Your task to perform on an android device: Clear all items from cart on bestbuy.com. Add asus rog to the cart on bestbuy.com, then select checkout. Image 0: 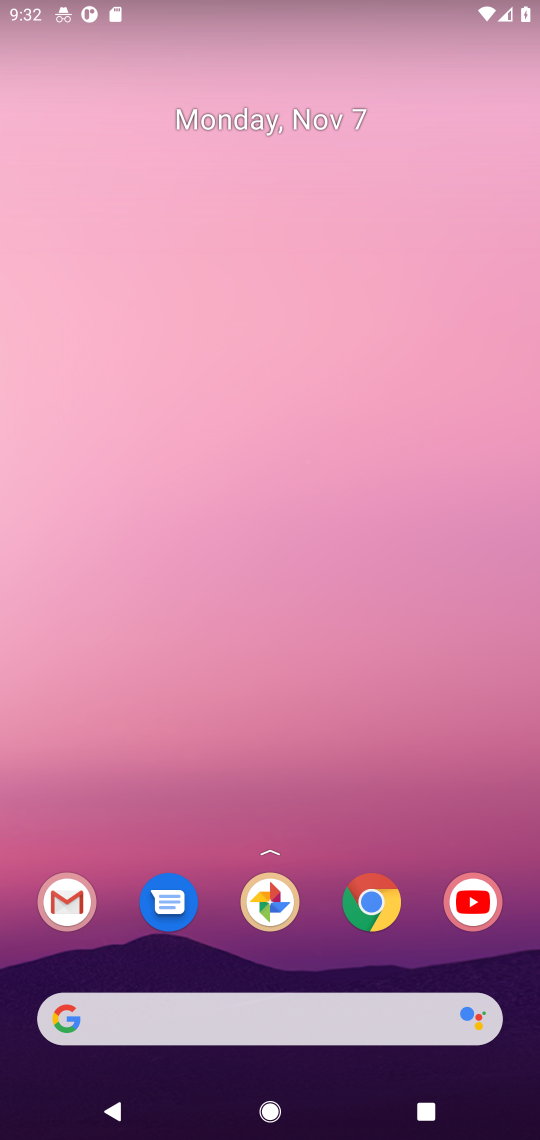
Step 0: click (373, 902)
Your task to perform on an android device: Clear all items from cart on bestbuy.com. Add asus rog to the cart on bestbuy.com, then select checkout. Image 1: 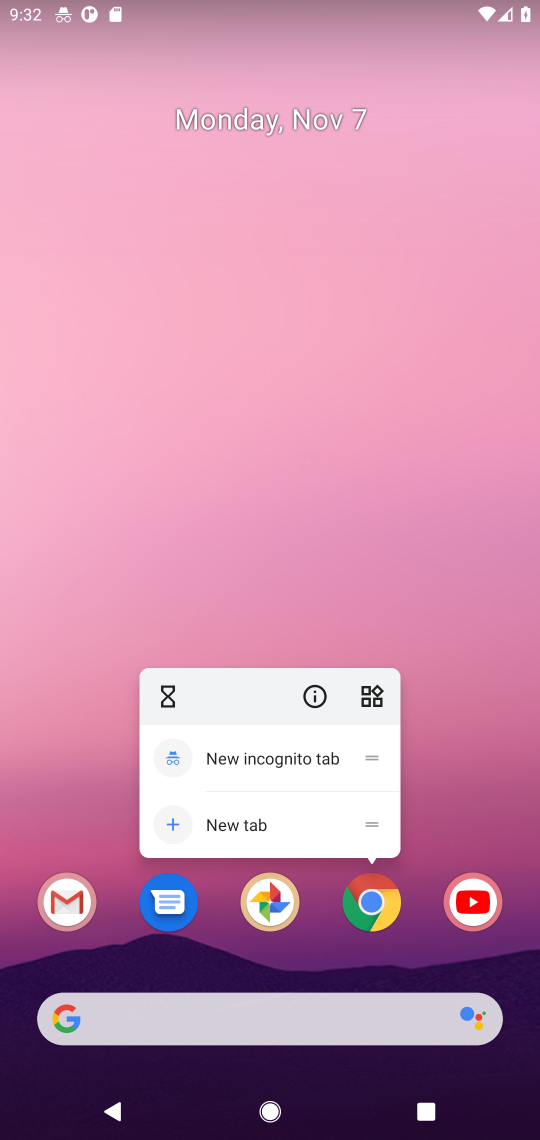
Step 1: click (369, 907)
Your task to perform on an android device: Clear all items from cart on bestbuy.com. Add asus rog to the cart on bestbuy.com, then select checkout. Image 2: 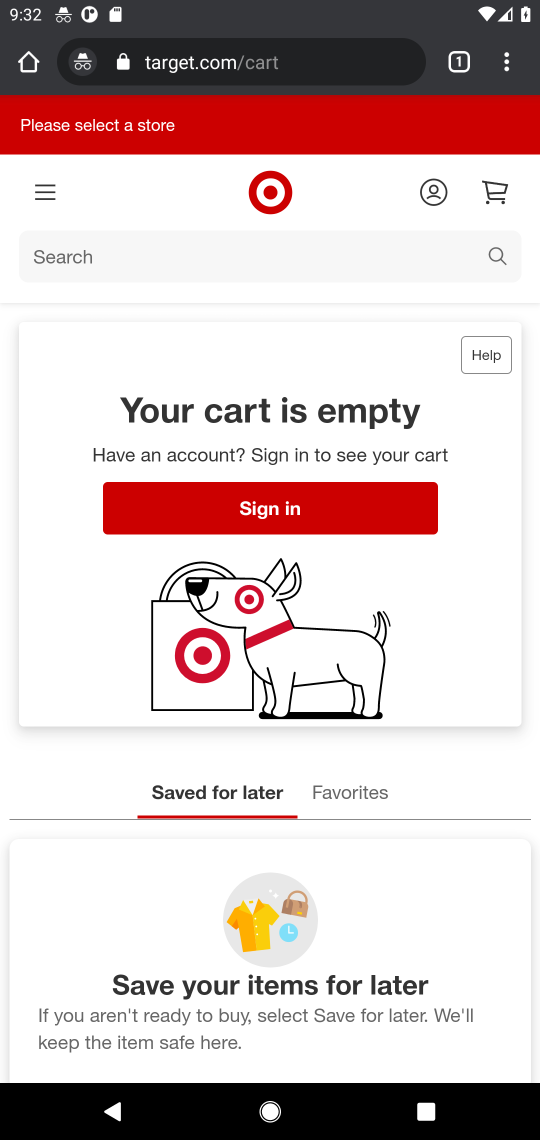
Step 2: click (206, 72)
Your task to perform on an android device: Clear all items from cart on bestbuy.com. Add asus rog to the cart on bestbuy.com, then select checkout. Image 3: 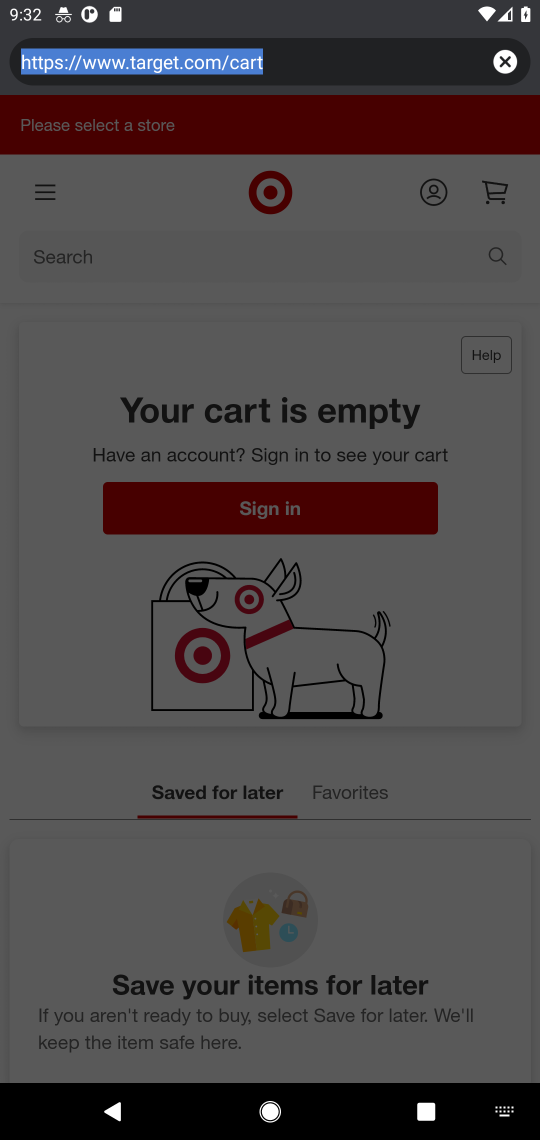
Step 3: type "bestbuy.com"
Your task to perform on an android device: Clear all items from cart on bestbuy.com. Add asus rog to the cart on bestbuy.com, then select checkout. Image 4: 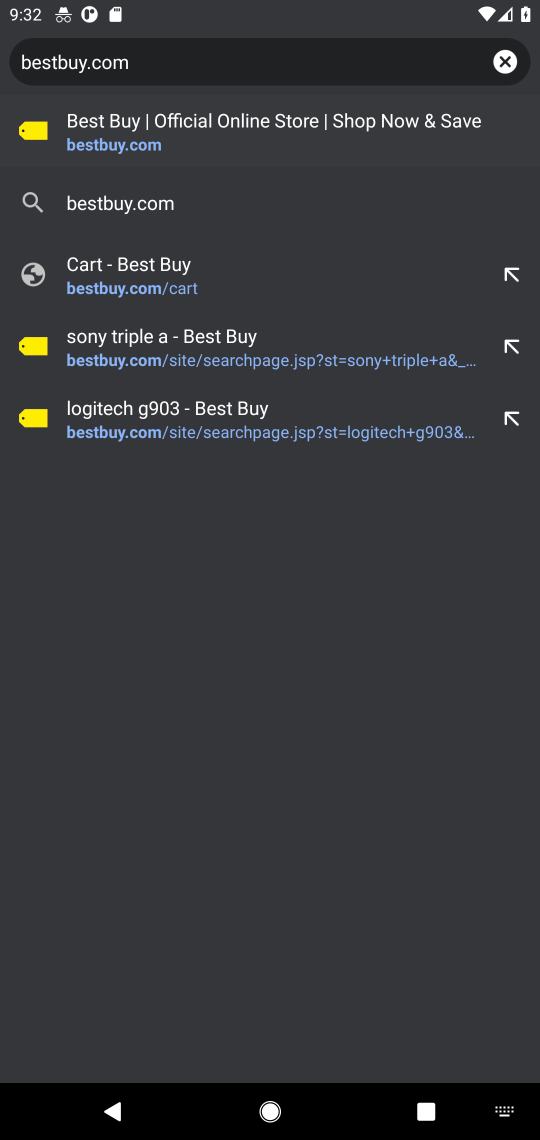
Step 4: click (112, 155)
Your task to perform on an android device: Clear all items from cart on bestbuy.com. Add asus rog to the cart on bestbuy.com, then select checkout. Image 5: 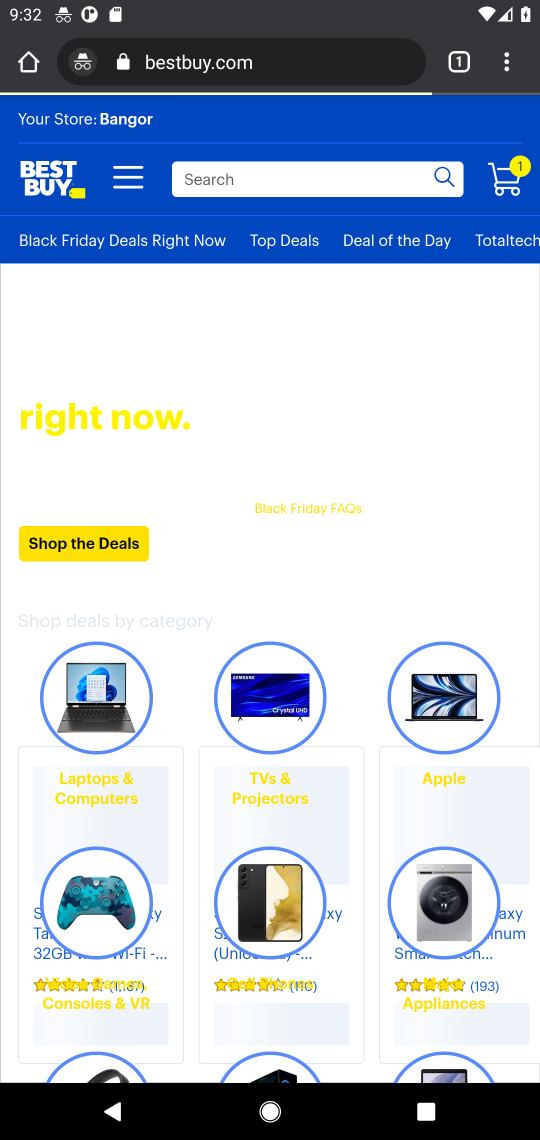
Step 5: click (516, 187)
Your task to perform on an android device: Clear all items from cart on bestbuy.com. Add asus rog to the cart on bestbuy.com, then select checkout. Image 6: 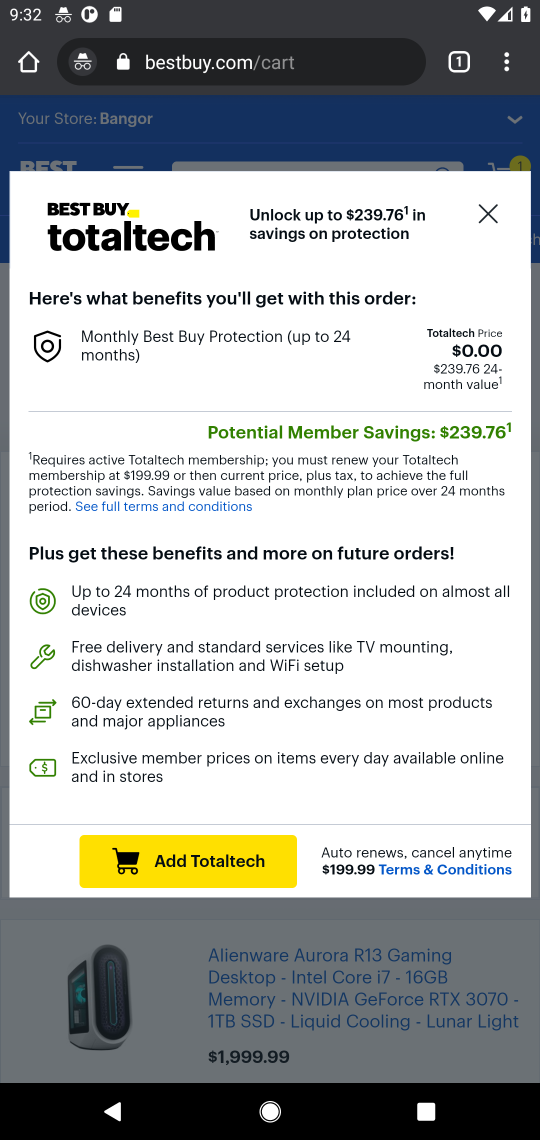
Step 6: click (479, 217)
Your task to perform on an android device: Clear all items from cart on bestbuy.com. Add asus rog to the cart on bestbuy.com, then select checkout. Image 7: 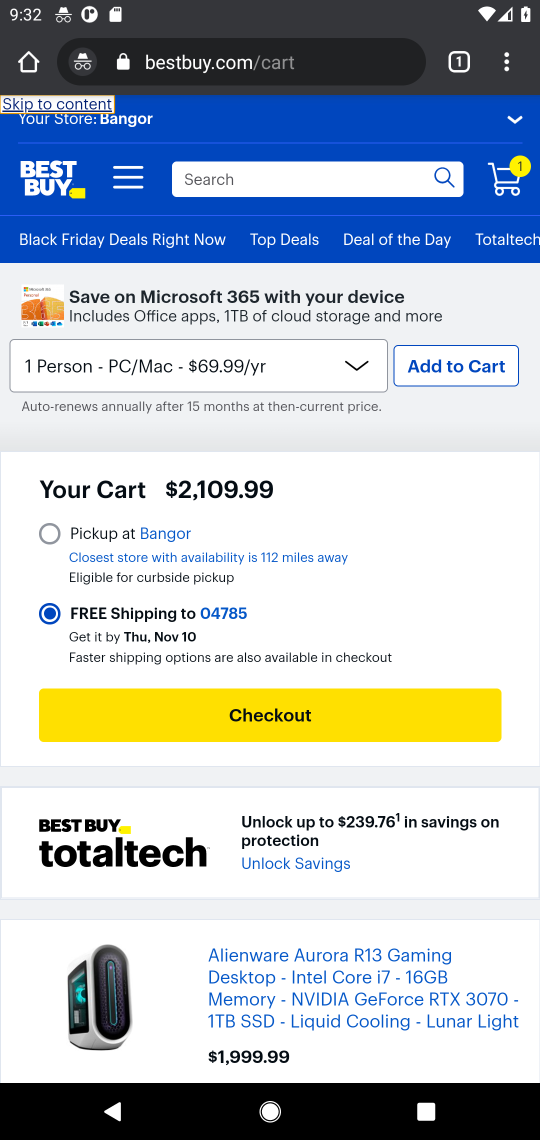
Step 7: drag from (136, 796) to (157, 488)
Your task to perform on an android device: Clear all items from cart on bestbuy.com. Add asus rog to the cart on bestbuy.com, then select checkout. Image 8: 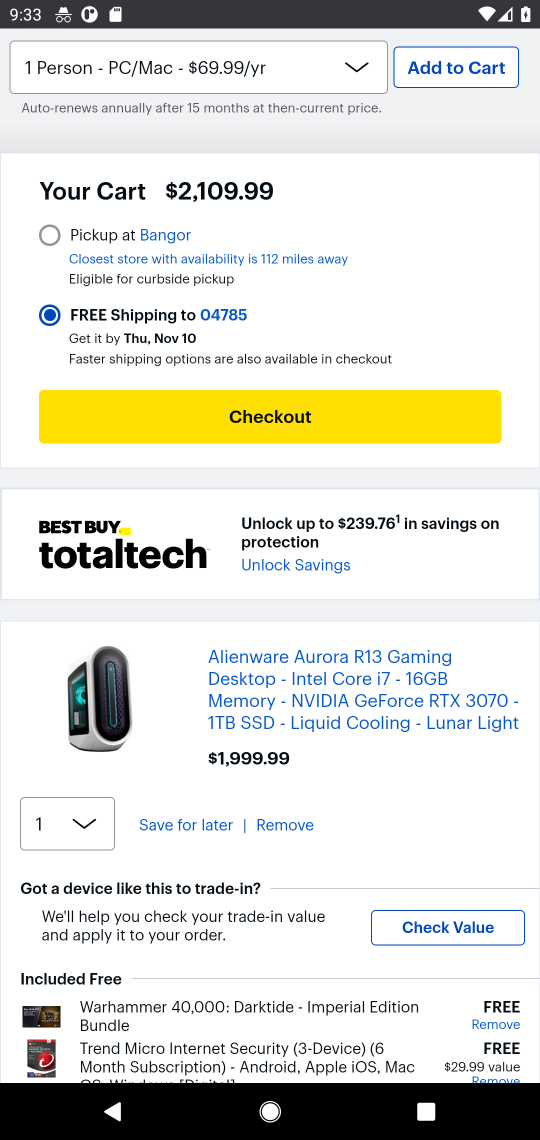
Step 8: click (267, 827)
Your task to perform on an android device: Clear all items from cart on bestbuy.com. Add asus rog to the cart on bestbuy.com, then select checkout. Image 9: 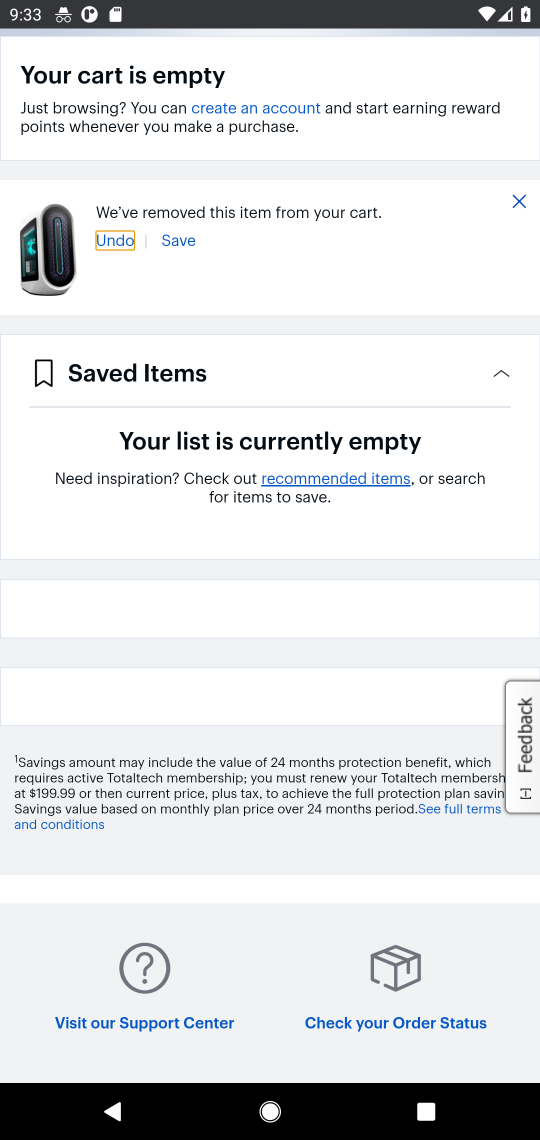
Step 9: drag from (330, 352) to (331, 665)
Your task to perform on an android device: Clear all items from cart on bestbuy.com. Add asus rog to the cart on bestbuy.com, then select checkout. Image 10: 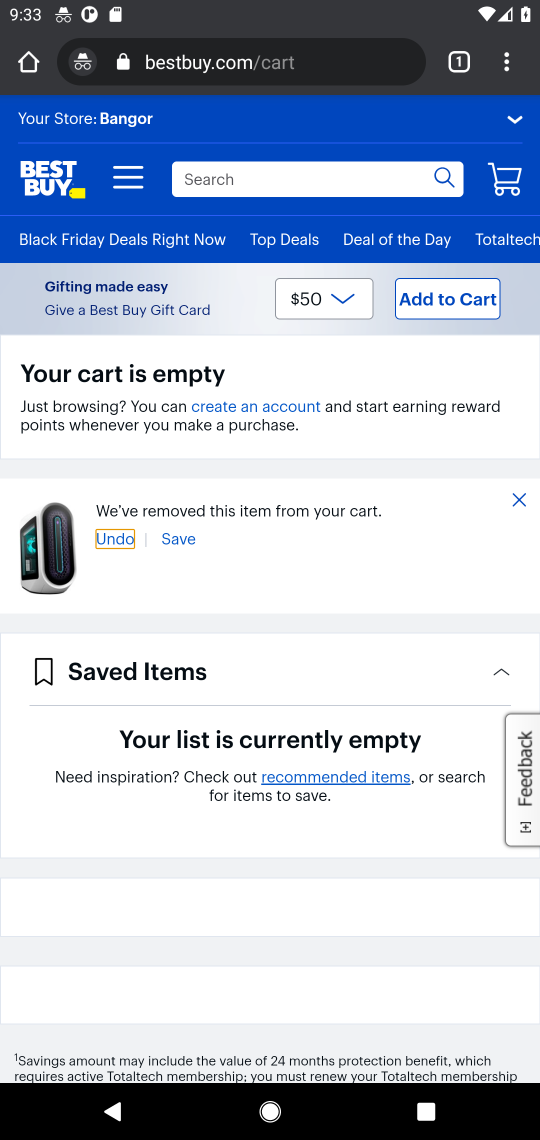
Step 10: click (309, 182)
Your task to perform on an android device: Clear all items from cart on bestbuy.com. Add asus rog to the cart on bestbuy.com, then select checkout. Image 11: 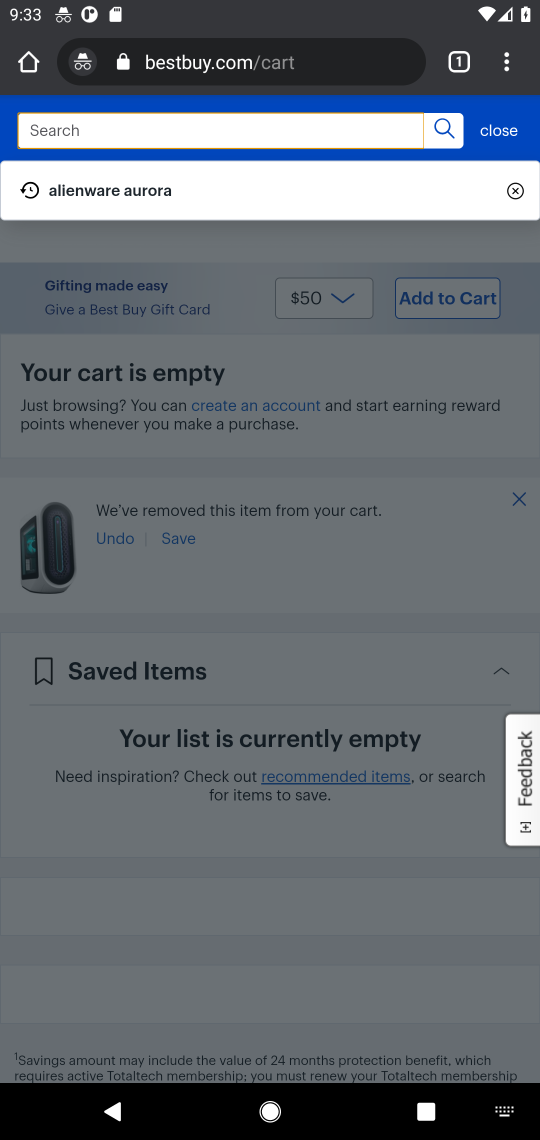
Step 11: type "asus rog "
Your task to perform on an android device: Clear all items from cart on bestbuy.com. Add asus rog to the cart on bestbuy.com, then select checkout. Image 12: 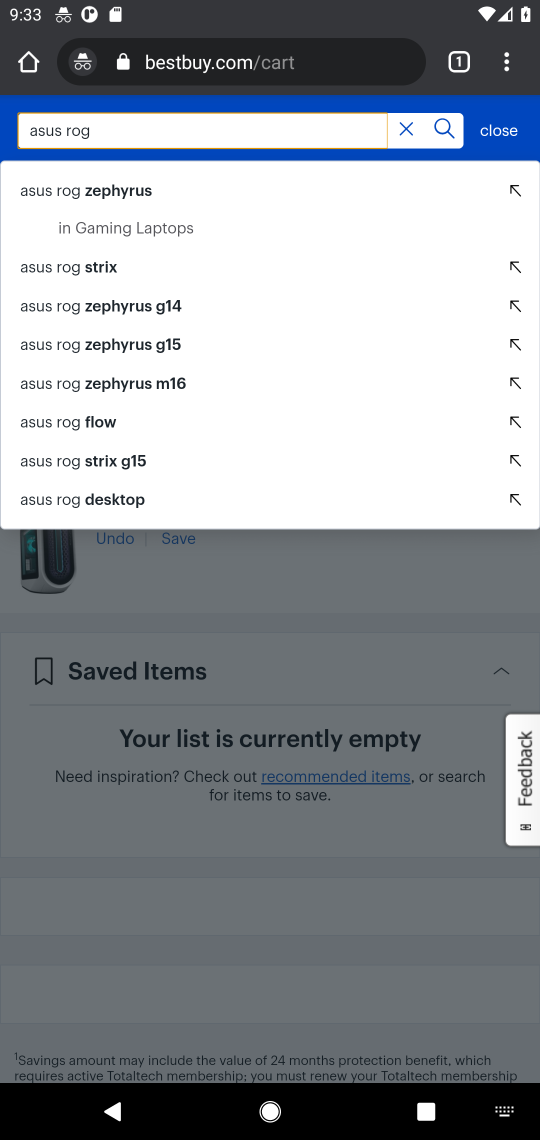
Step 12: click (449, 134)
Your task to perform on an android device: Clear all items from cart on bestbuy.com. Add asus rog to the cart on bestbuy.com, then select checkout. Image 13: 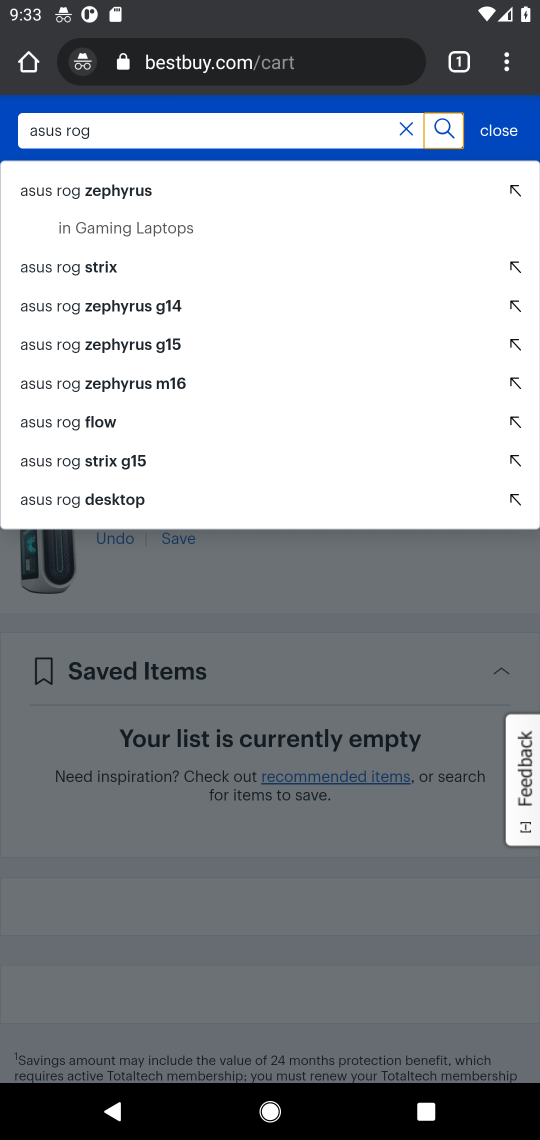
Step 13: click (441, 133)
Your task to perform on an android device: Clear all items from cart on bestbuy.com. Add asus rog to the cart on bestbuy.com, then select checkout. Image 14: 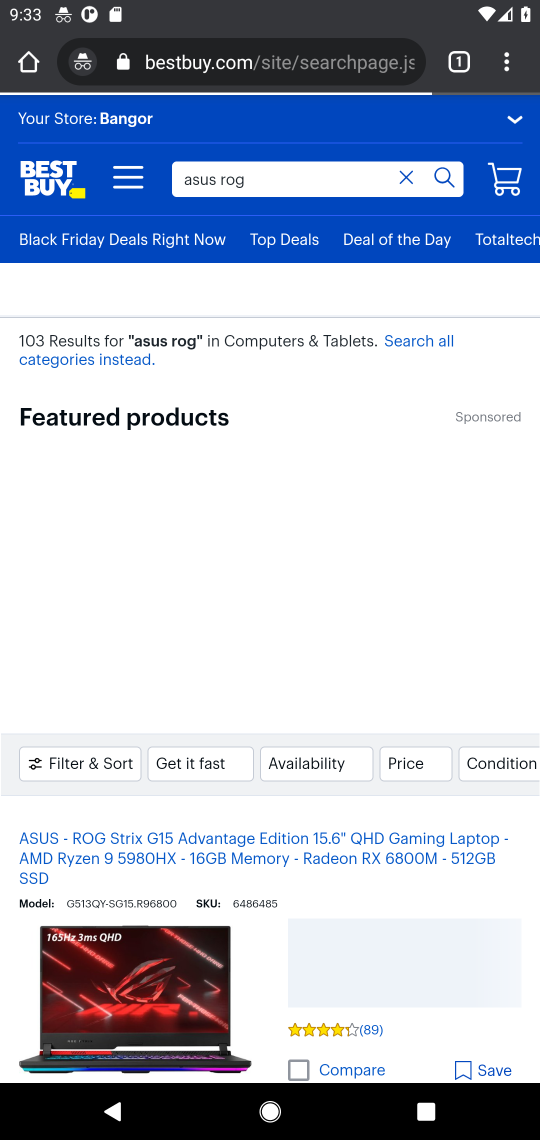
Step 14: drag from (252, 724) to (271, 358)
Your task to perform on an android device: Clear all items from cart on bestbuy.com. Add asus rog to the cart on bestbuy.com, then select checkout. Image 15: 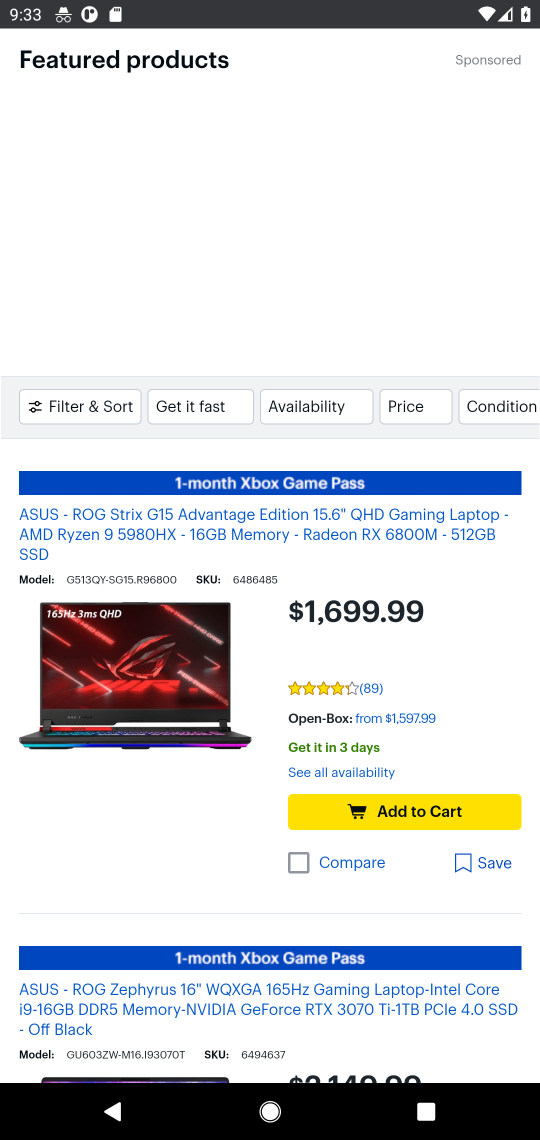
Step 15: click (375, 766)
Your task to perform on an android device: Clear all items from cart on bestbuy.com. Add asus rog to the cart on bestbuy.com, then select checkout. Image 16: 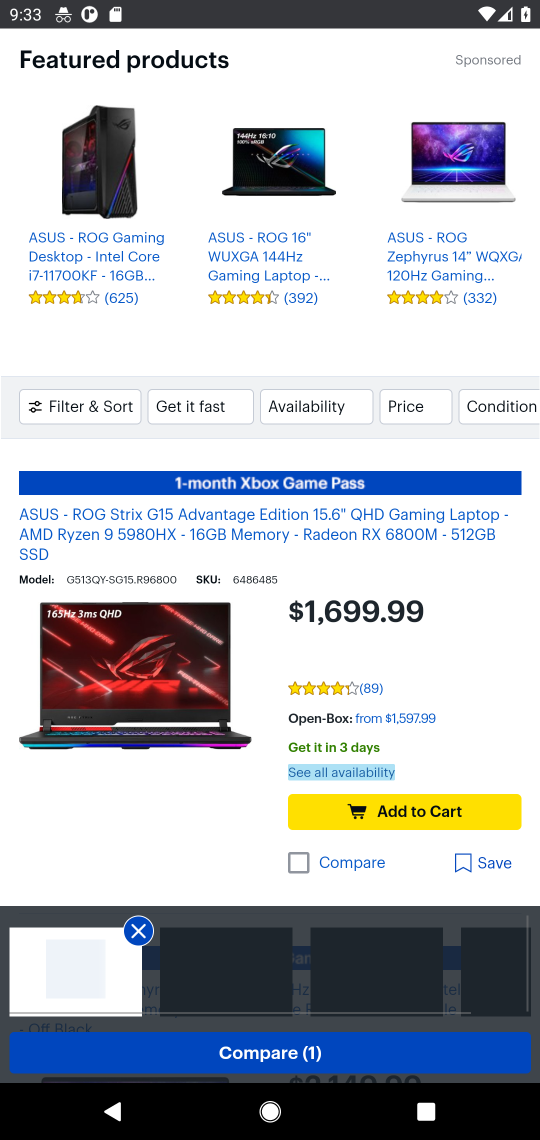
Step 16: click (375, 807)
Your task to perform on an android device: Clear all items from cart on bestbuy.com. Add asus rog to the cart on bestbuy.com, then select checkout. Image 17: 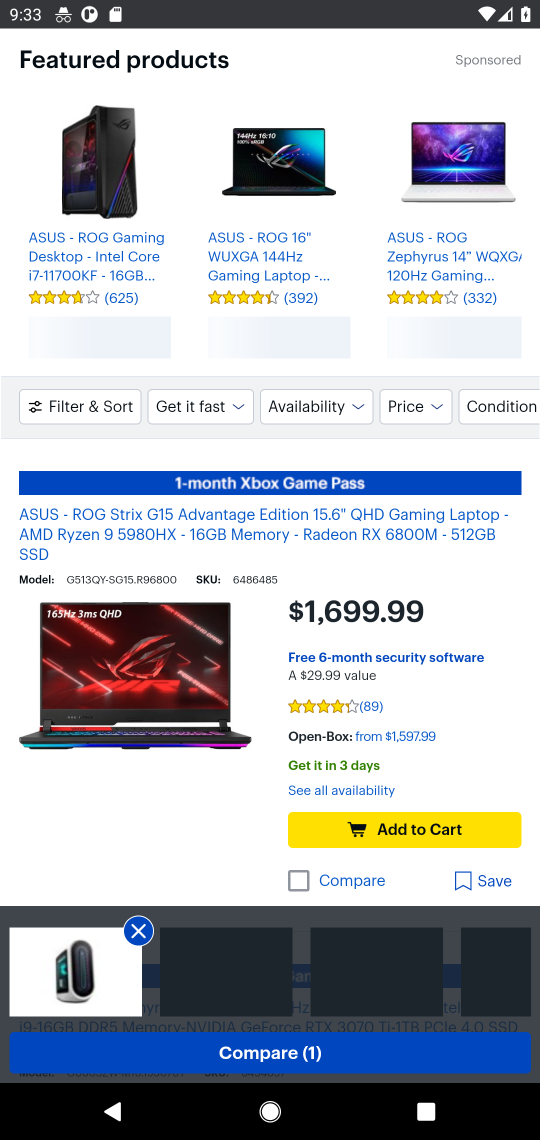
Step 17: click (397, 833)
Your task to perform on an android device: Clear all items from cart on bestbuy.com. Add asus rog to the cart on bestbuy.com, then select checkout. Image 18: 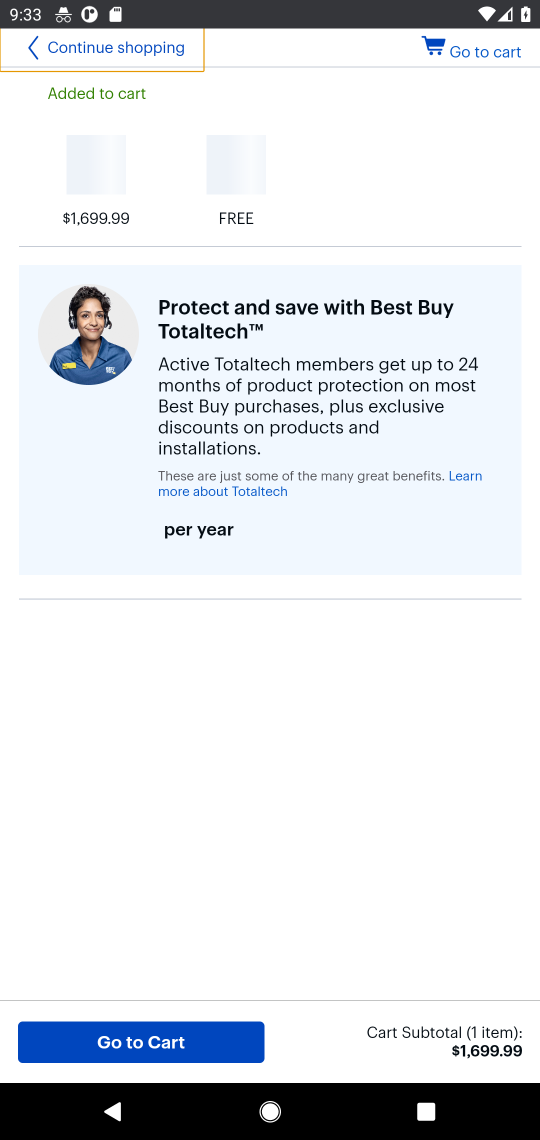
Step 18: click (472, 46)
Your task to perform on an android device: Clear all items from cart on bestbuy.com. Add asus rog to the cart on bestbuy.com, then select checkout. Image 19: 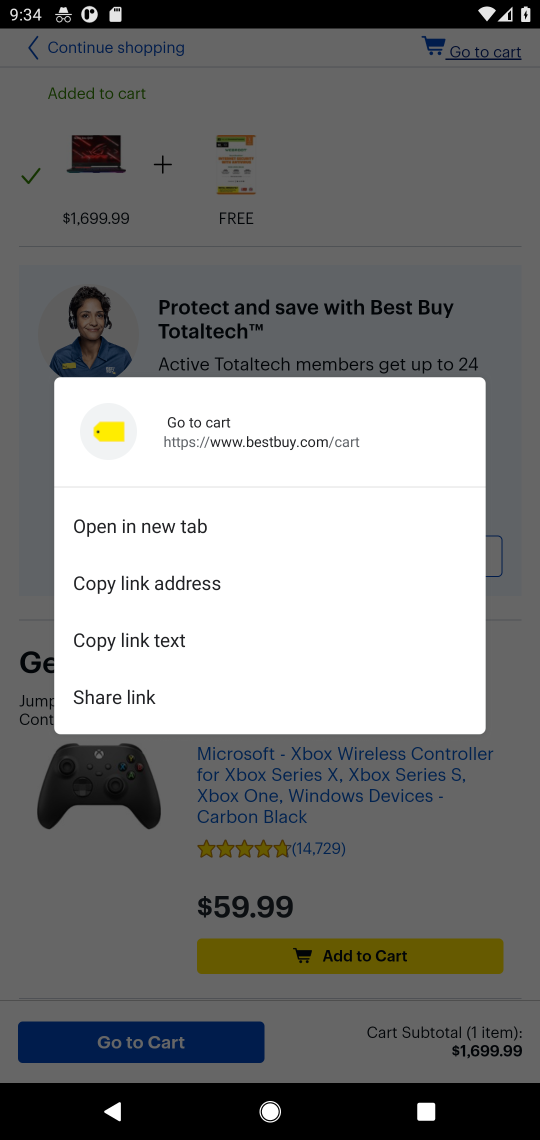
Step 19: click (496, 56)
Your task to perform on an android device: Clear all items from cart on bestbuy.com. Add asus rog to the cart on bestbuy.com, then select checkout. Image 20: 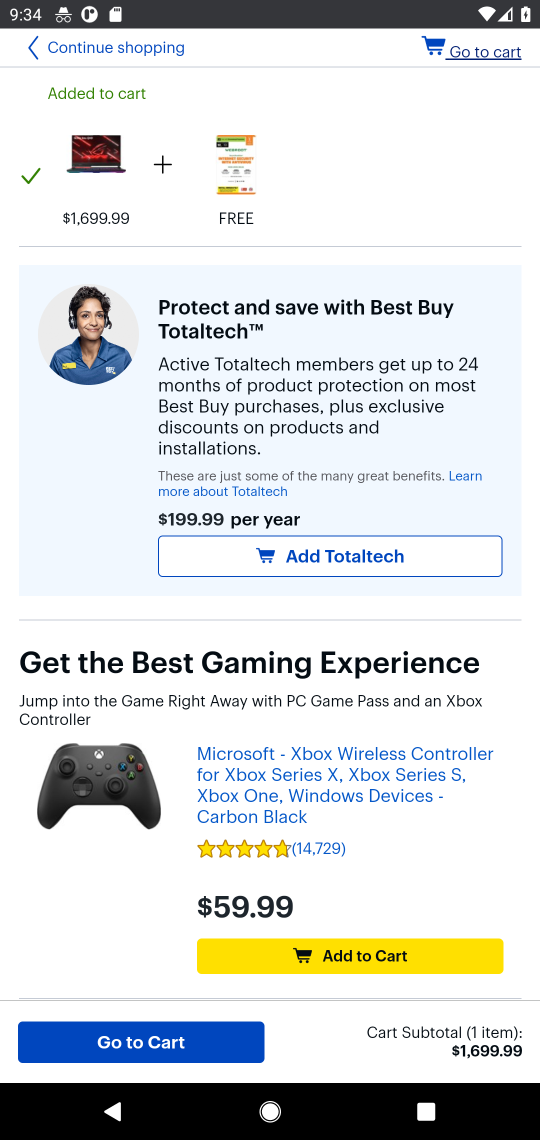
Step 20: click (495, 56)
Your task to perform on an android device: Clear all items from cart on bestbuy.com. Add asus rog to the cart on bestbuy.com, then select checkout. Image 21: 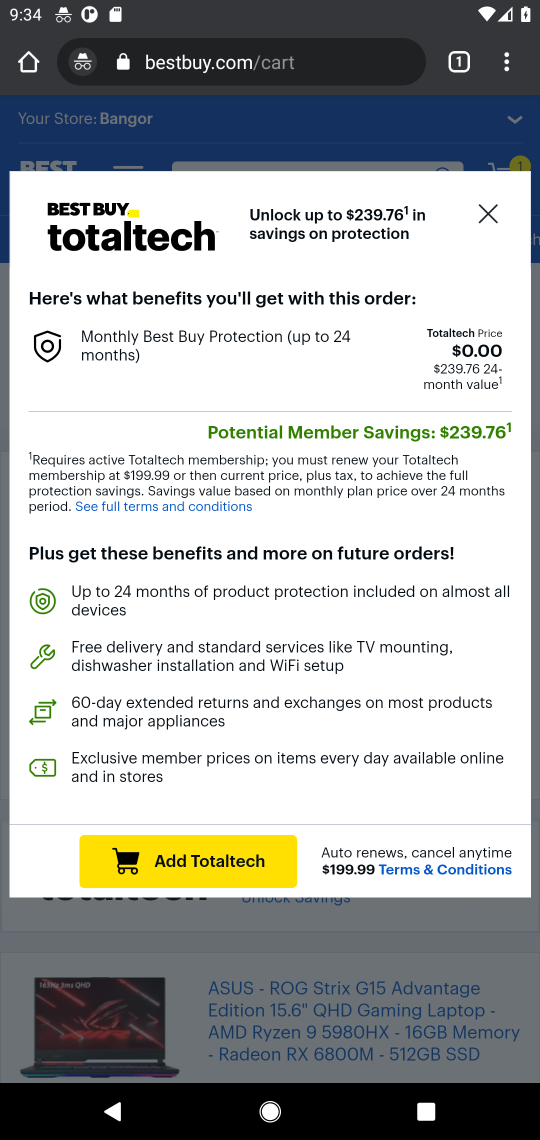
Step 21: click (488, 217)
Your task to perform on an android device: Clear all items from cart on bestbuy.com. Add asus rog to the cart on bestbuy.com, then select checkout. Image 22: 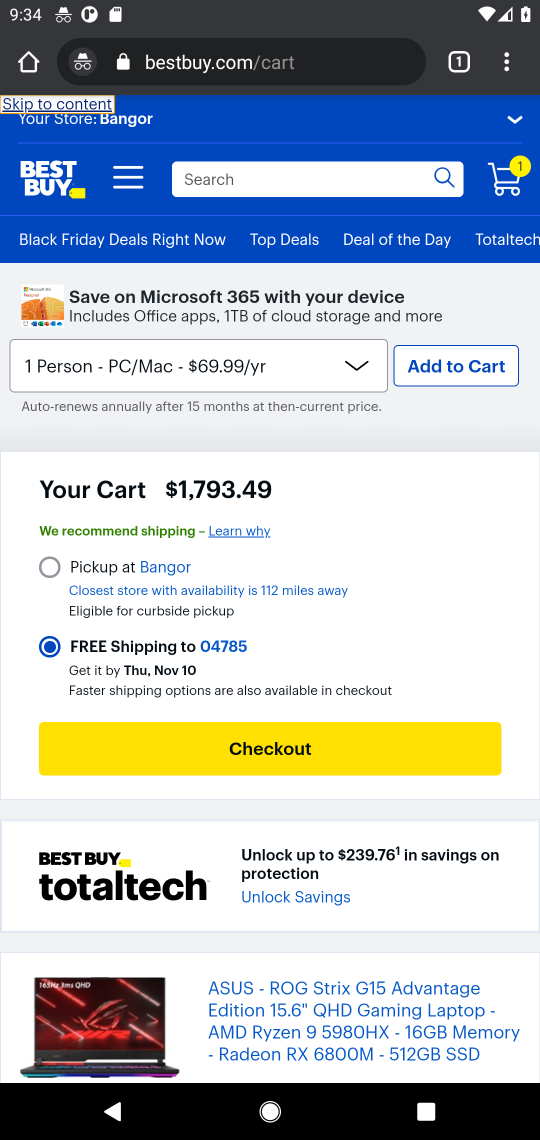
Step 22: click (256, 737)
Your task to perform on an android device: Clear all items from cart on bestbuy.com. Add asus rog to the cart on bestbuy.com, then select checkout. Image 23: 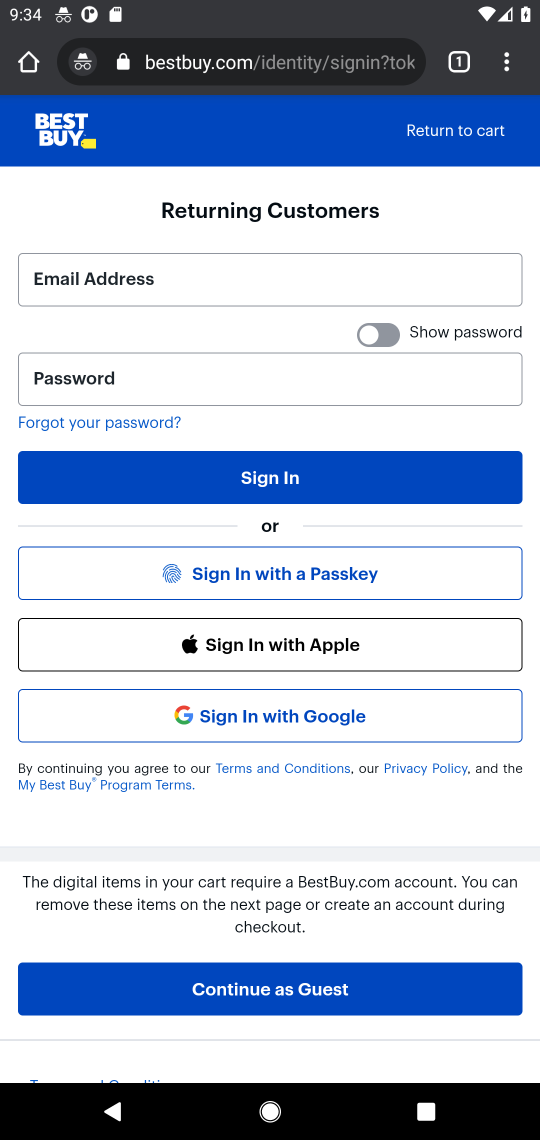
Step 23: task complete